Your task to perform on an android device: Go to Maps Image 0: 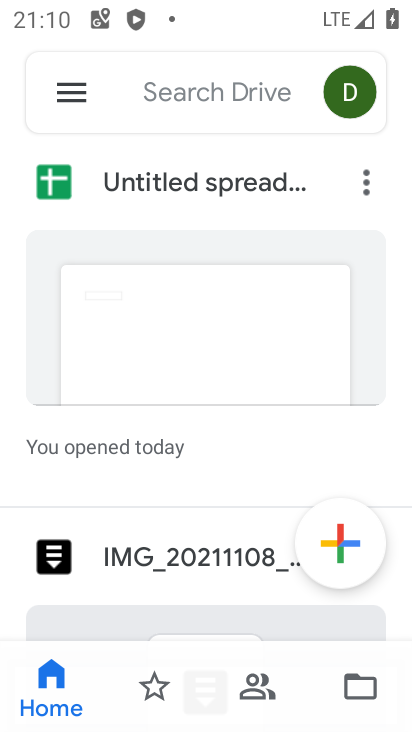
Step 0: press home button
Your task to perform on an android device: Go to Maps Image 1: 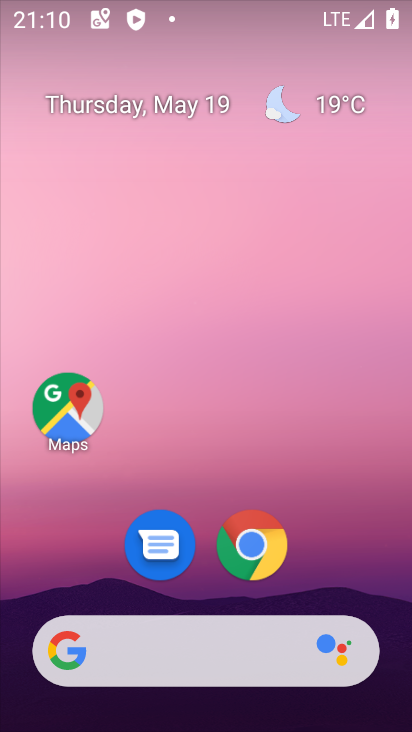
Step 1: click (48, 414)
Your task to perform on an android device: Go to Maps Image 2: 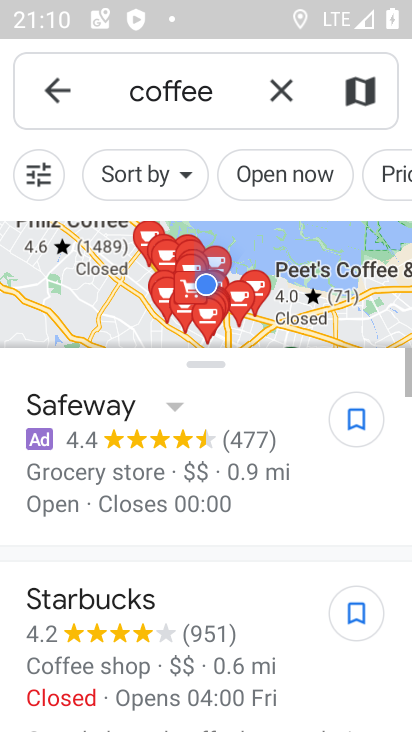
Step 2: task complete